Your task to perform on an android device: Open sound settings Image 0: 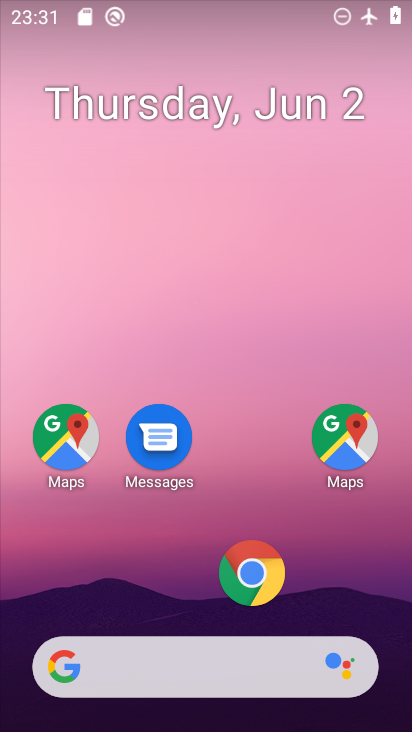
Step 0: drag from (244, 487) to (247, 250)
Your task to perform on an android device: Open sound settings Image 1: 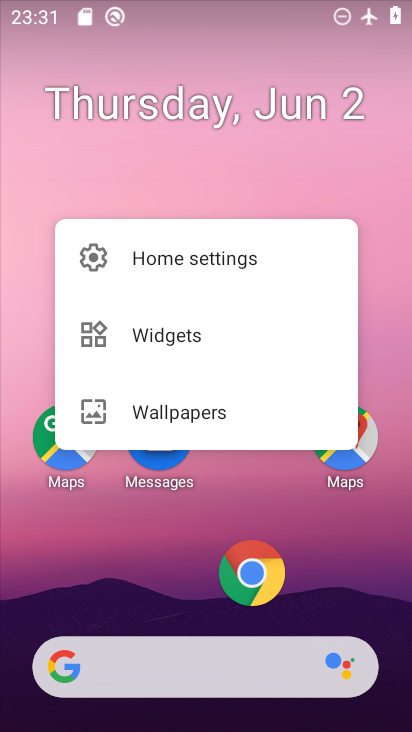
Step 1: press home button
Your task to perform on an android device: Open sound settings Image 2: 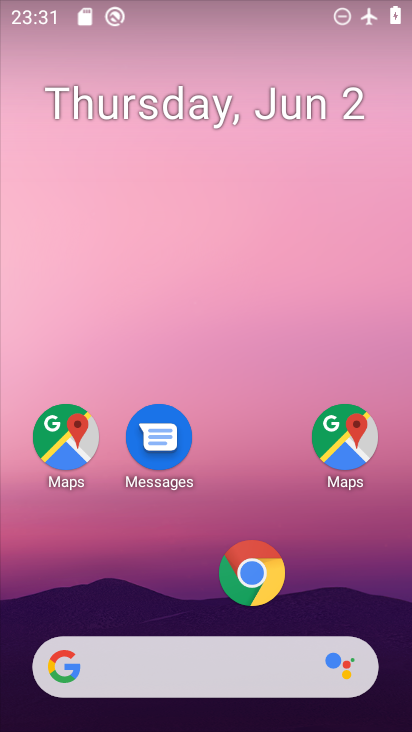
Step 2: press home button
Your task to perform on an android device: Open sound settings Image 3: 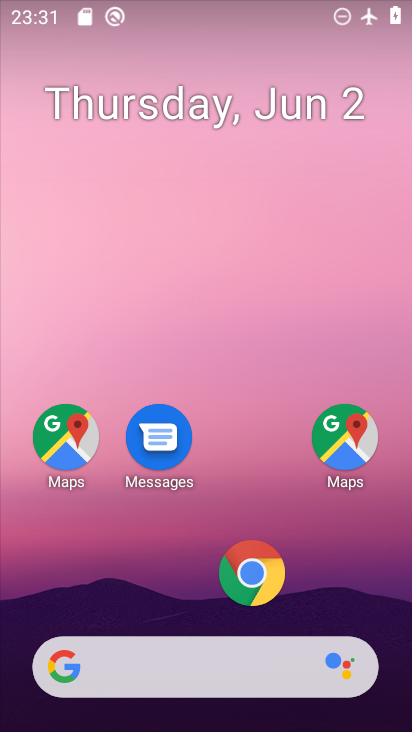
Step 3: press home button
Your task to perform on an android device: Open sound settings Image 4: 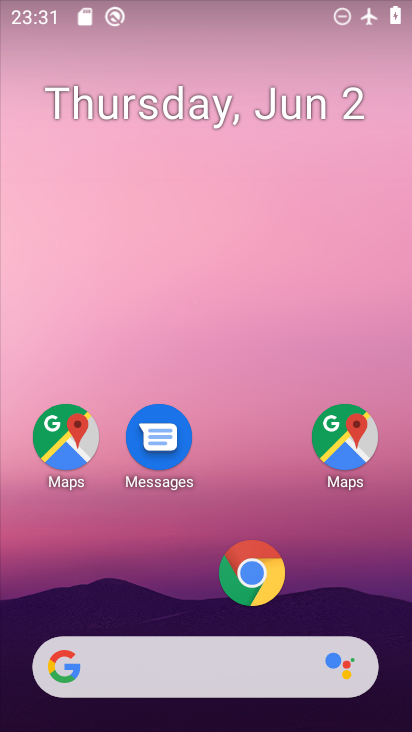
Step 4: drag from (206, 161) to (188, 24)
Your task to perform on an android device: Open sound settings Image 5: 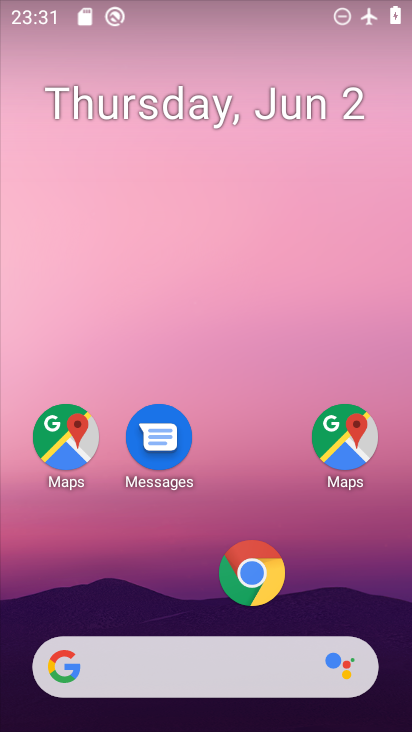
Step 5: drag from (312, 604) to (188, 108)
Your task to perform on an android device: Open sound settings Image 6: 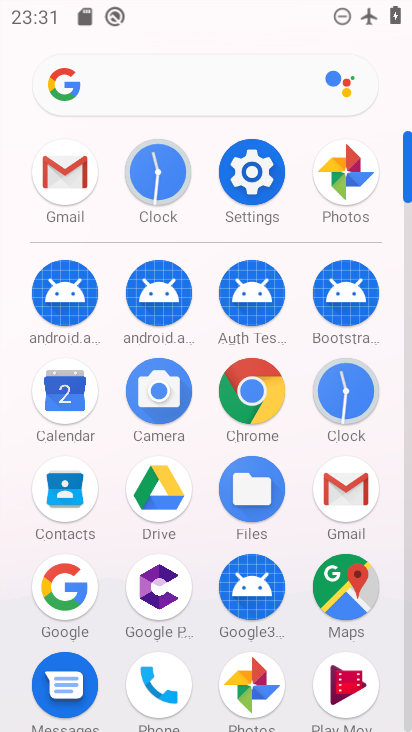
Step 6: click (247, 163)
Your task to perform on an android device: Open sound settings Image 7: 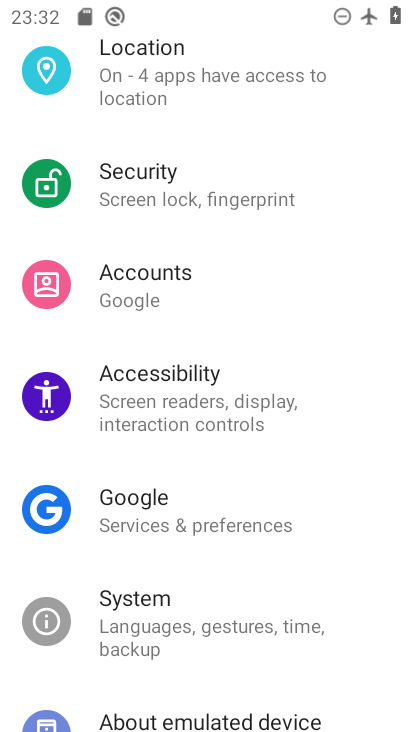
Step 7: drag from (184, 104) to (299, 519)
Your task to perform on an android device: Open sound settings Image 8: 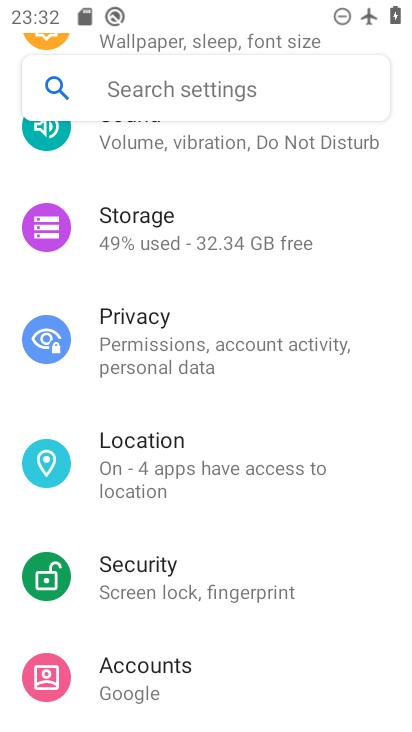
Step 8: drag from (183, 164) to (265, 486)
Your task to perform on an android device: Open sound settings Image 9: 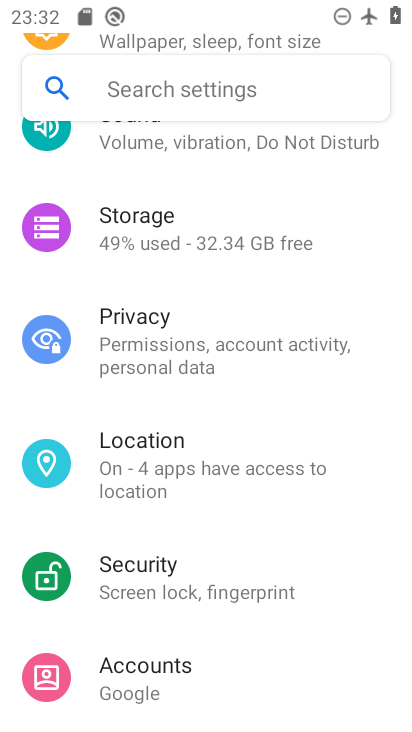
Step 9: drag from (297, 232) to (276, 532)
Your task to perform on an android device: Open sound settings Image 10: 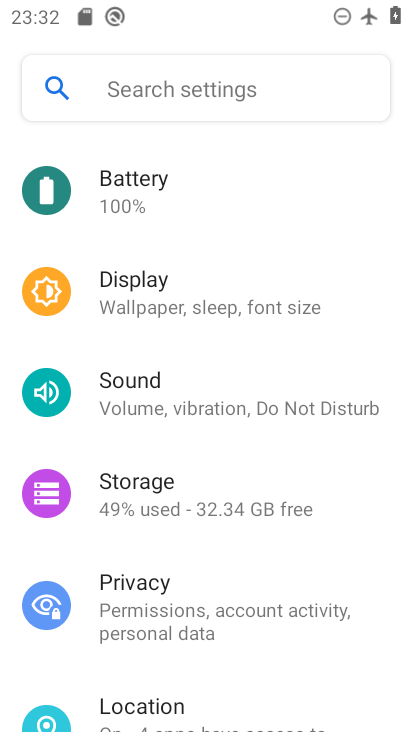
Step 10: drag from (177, 266) to (180, 533)
Your task to perform on an android device: Open sound settings Image 11: 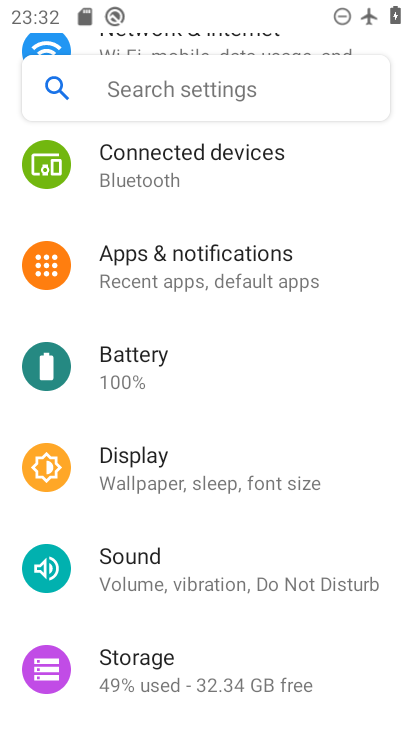
Step 11: click (161, 569)
Your task to perform on an android device: Open sound settings Image 12: 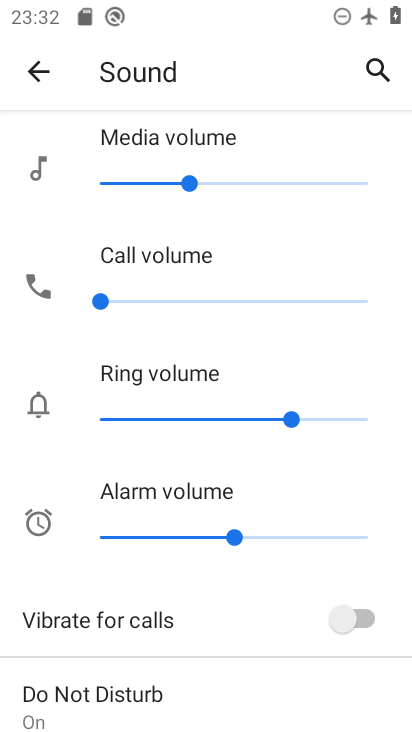
Step 12: task complete